Your task to perform on an android device: check battery use Image 0: 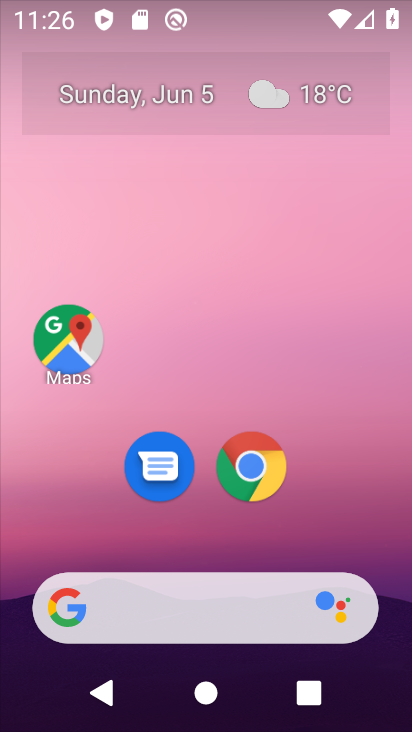
Step 0: press home button
Your task to perform on an android device: check battery use Image 1: 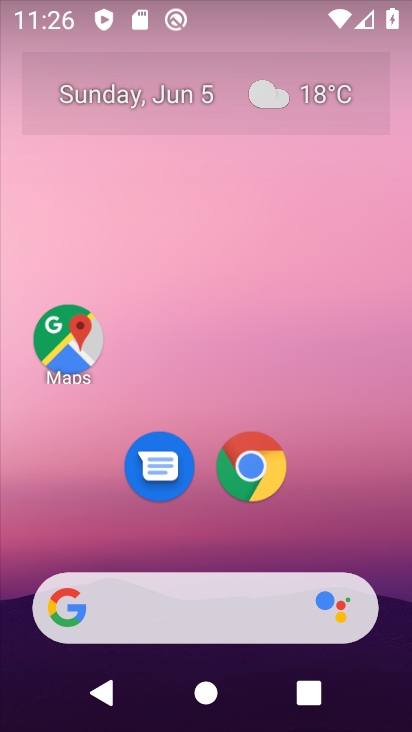
Step 1: drag from (373, 502) to (315, 156)
Your task to perform on an android device: check battery use Image 2: 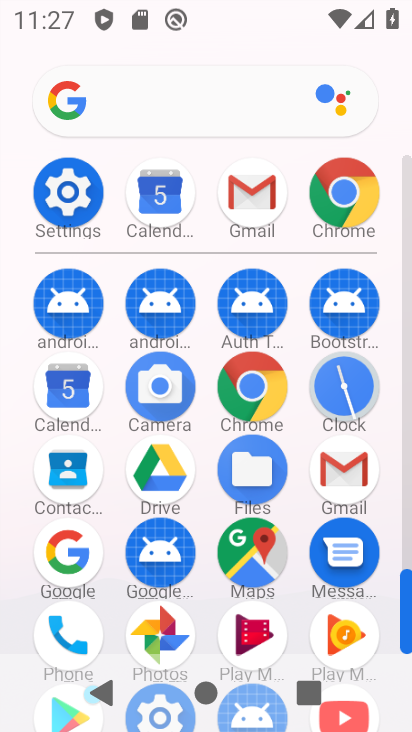
Step 2: click (42, 214)
Your task to perform on an android device: check battery use Image 3: 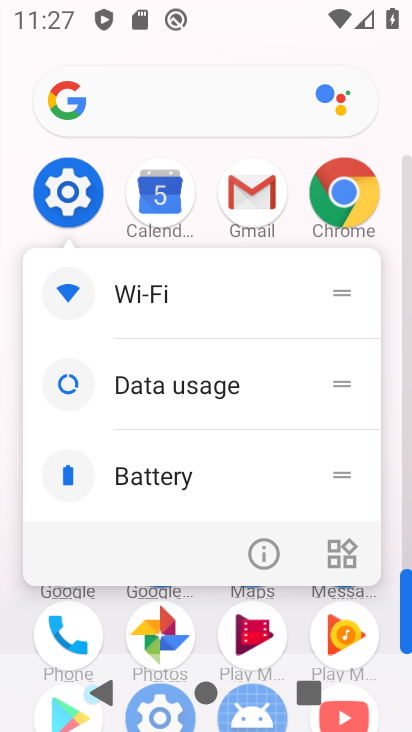
Step 3: click (75, 190)
Your task to perform on an android device: check battery use Image 4: 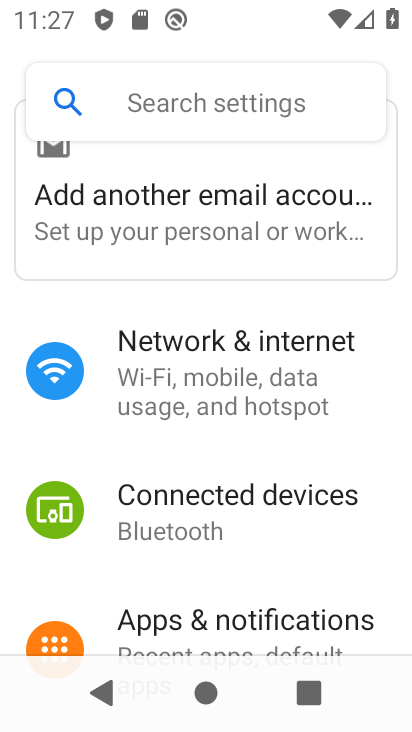
Step 4: drag from (324, 562) to (339, 224)
Your task to perform on an android device: check battery use Image 5: 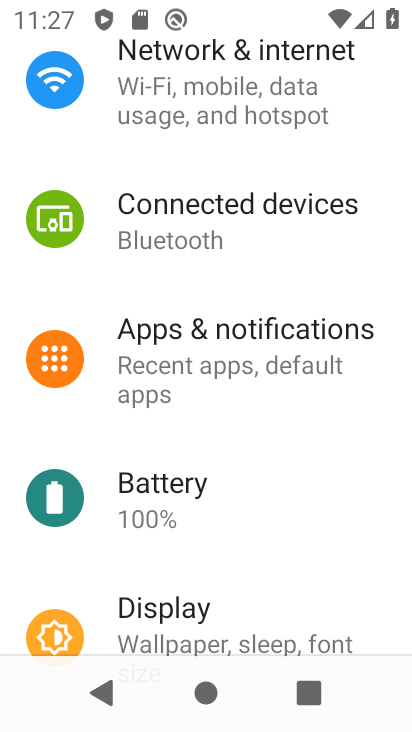
Step 5: click (148, 504)
Your task to perform on an android device: check battery use Image 6: 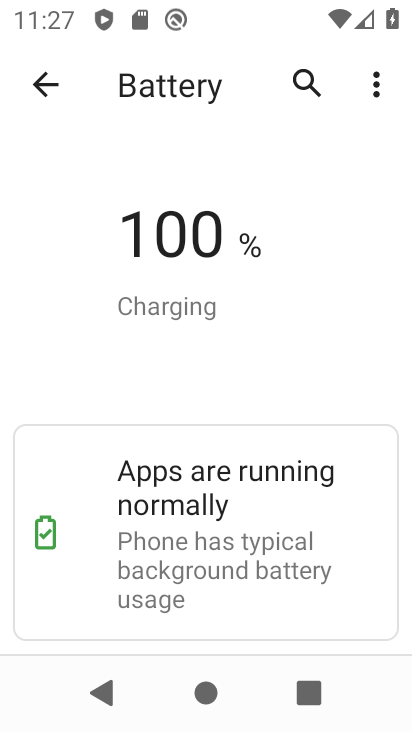
Step 6: drag from (275, 530) to (330, 221)
Your task to perform on an android device: check battery use Image 7: 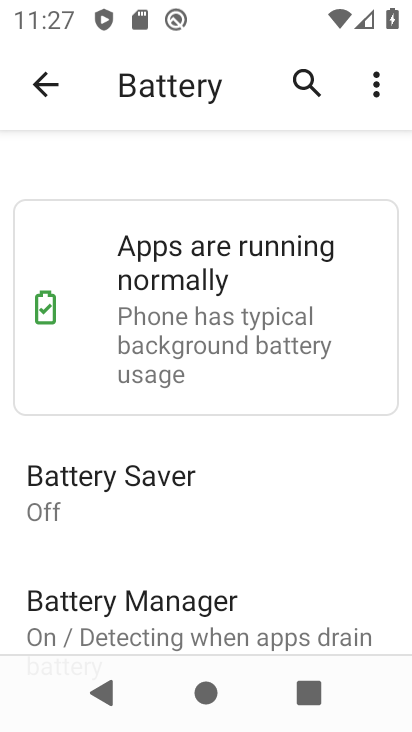
Step 7: drag from (239, 578) to (314, 247)
Your task to perform on an android device: check battery use Image 8: 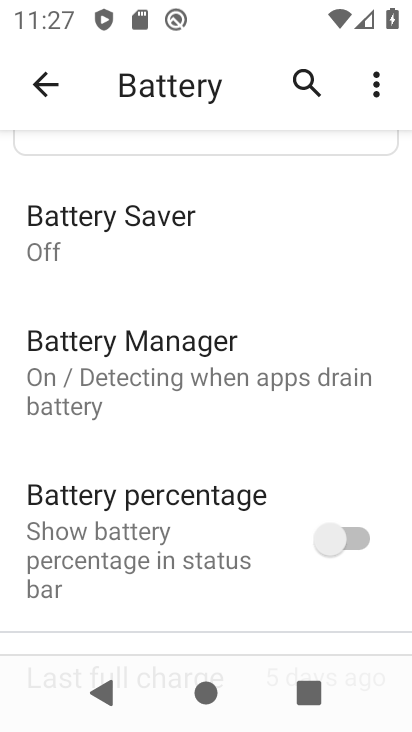
Step 8: drag from (383, 79) to (288, 279)
Your task to perform on an android device: check battery use Image 9: 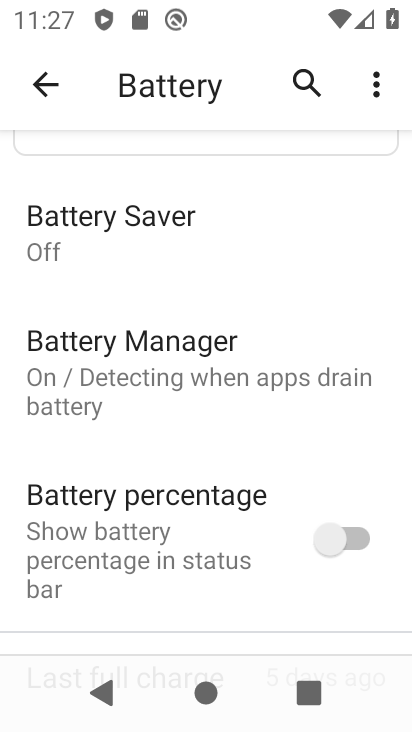
Step 9: click (382, 72)
Your task to perform on an android device: check battery use Image 10: 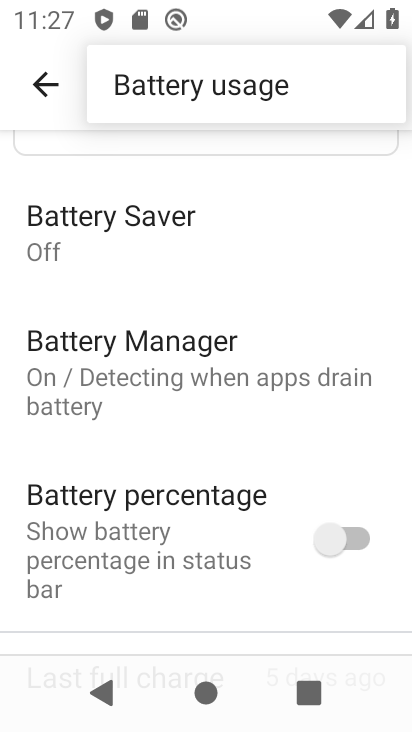
Step 10: click (217, 97)
Your task to perform on an android device: check battery use Image 11: 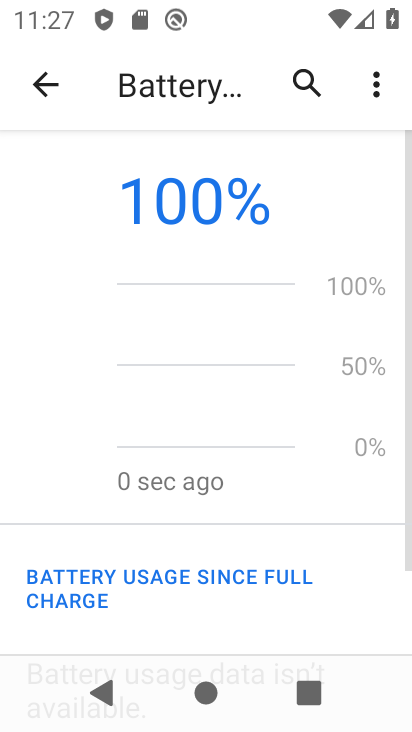
Step 11: task complete